Your task to perform on an android device: Open internet settings Image 0: 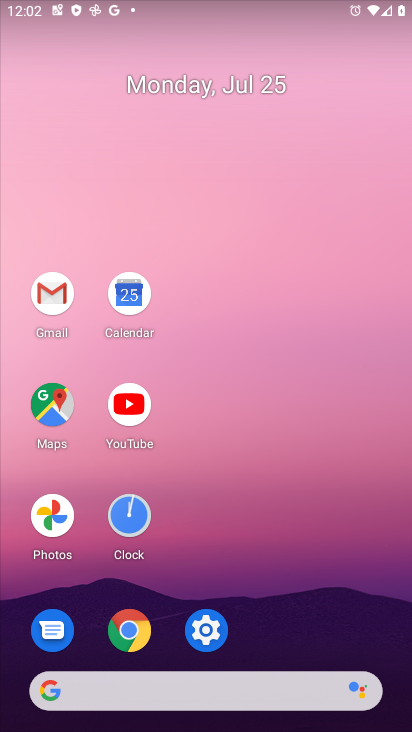
Step 0: click (202, 631)
Your task to perform on an android device: Open internet settings Image 1: 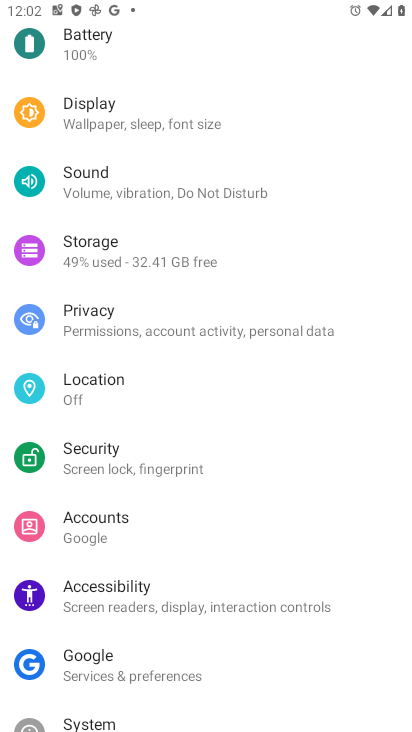
Step 1: drag from (260, 165) to (193, 639)
Your task to perform on an android device: Open internet settings Image 2: 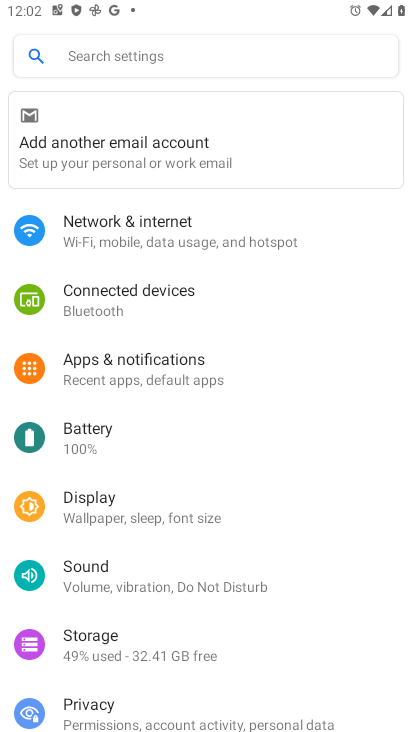
Step 2: click (131, 222)
Your task to perform on an android device: Open internet settings Image 3: 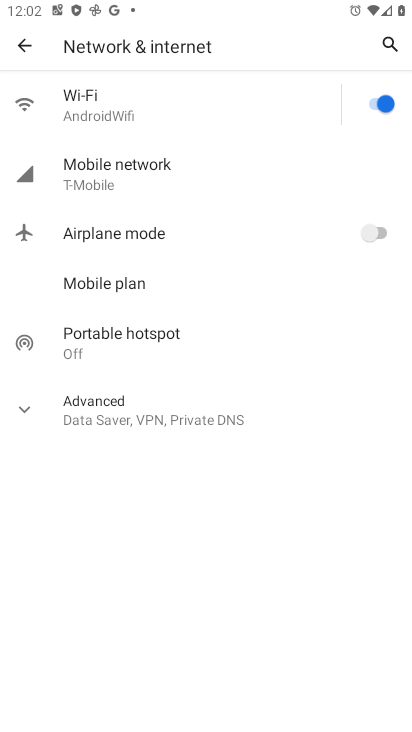
Step 3: click (95, 165)
Your task to perform on an android device: Open internet settings Image 4: 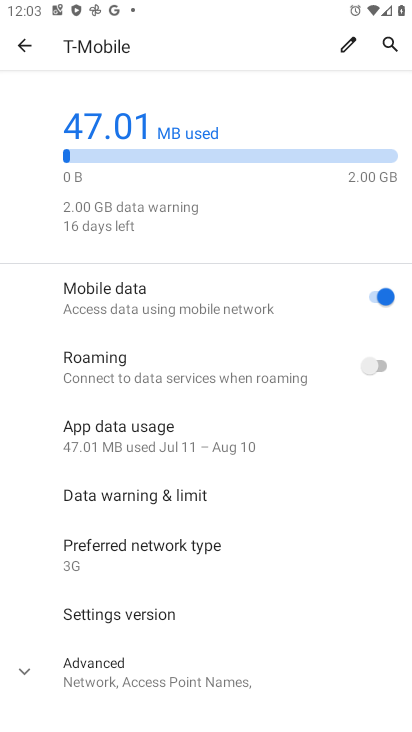
Step 4: task complete